Your task to perform on an android device: turn notification dots off Image 0: 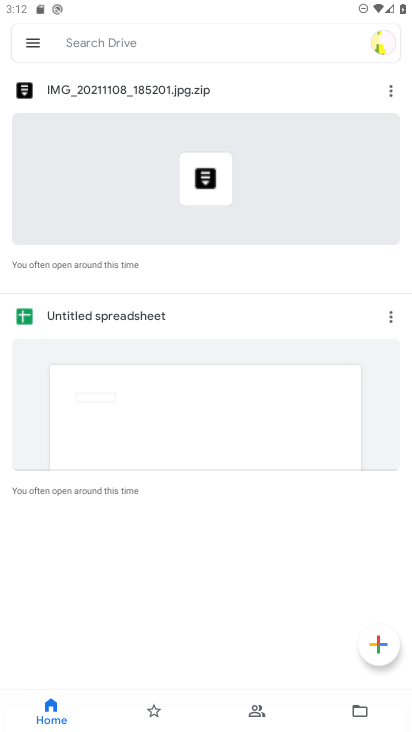
Step 0: press home button
Your task to perform on an android device: turn notification dots off Image 1: 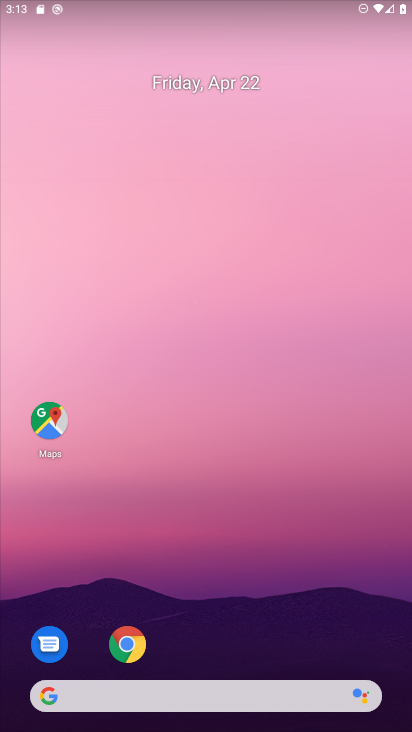
Step 1: drag from (324, 479) to (324, 61)
Your task to perform on an android device: turn notification dots off Image 2: 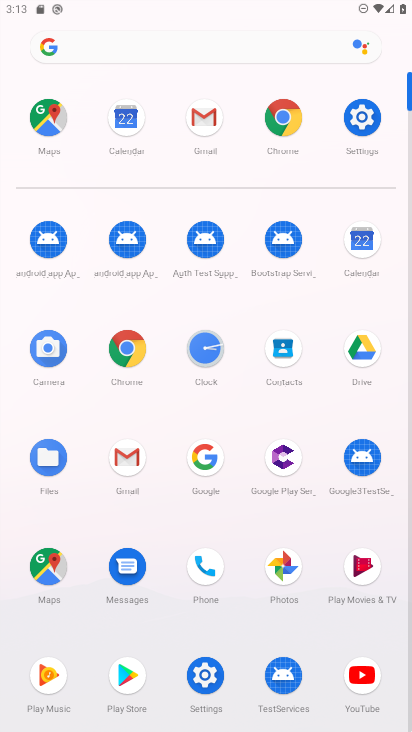
Step 2: click (356, 116)
Your task to perform on an android device: turn notification dots off Image 3: 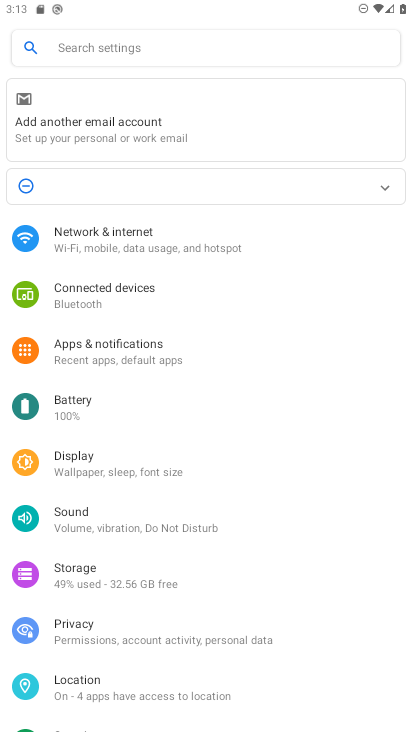
Step 3: click (121, 353)
Your task to perform on an android device: turn notification dots off Image 4: 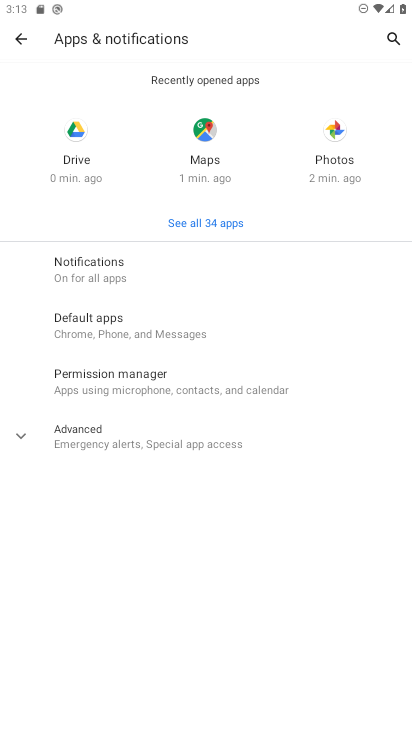
Step 4: click (124, 276)
Your task to perform on an android device: turn notification dots off Image 5: 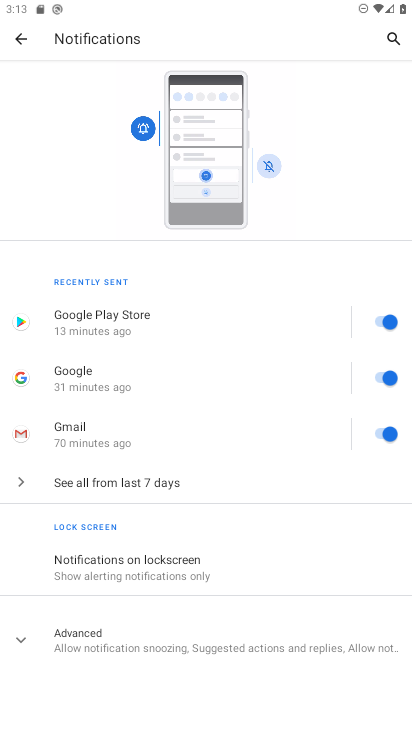
Step 5: click (129, 637)
Your task to perform on an android device: turn notification dots off Image 6: 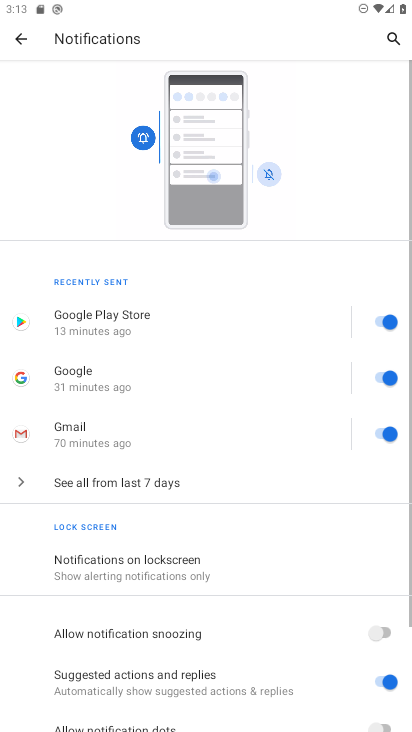
Step 6: task complete